Your task to perform on an android device: move a message to another label in the gmail app Image 0: 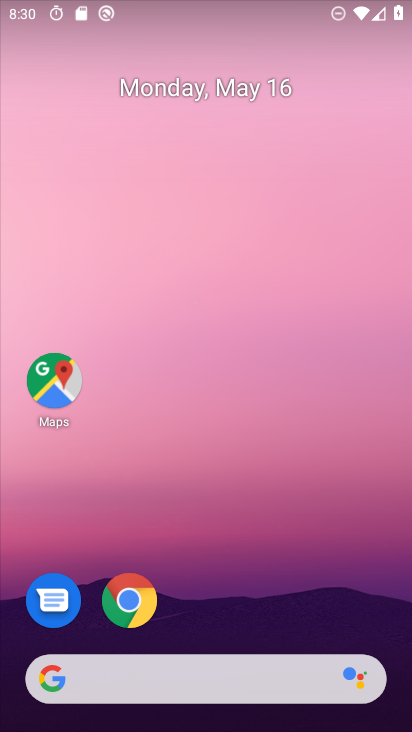
Step 0: drag from (177, 681) to (283, 123)
Your task to perform on an android device: move a message to another label in the gmail app Image 1: 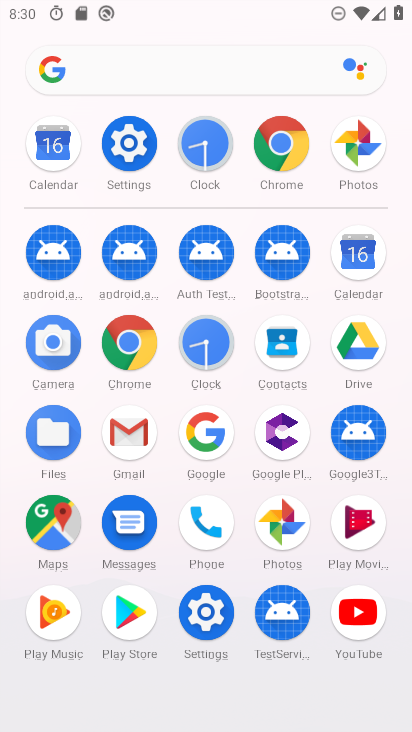
Step 1: click (136, 439)
Your task to perform on an android device: move a message to another label in the gmail app Image 2: 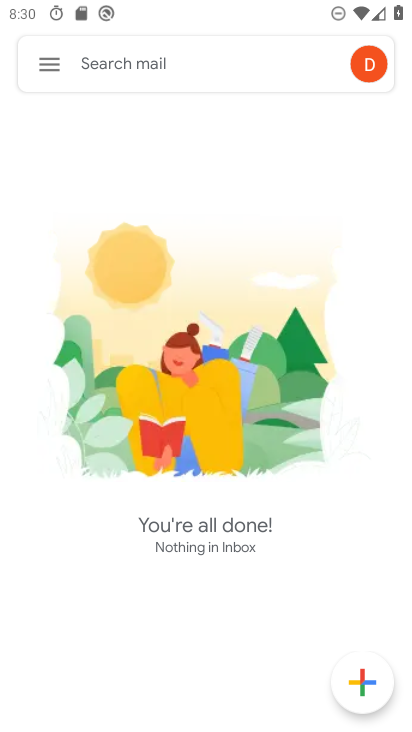
Step 2: task complete